Your task to perform on an android device: open app "Venmo" Image 0: 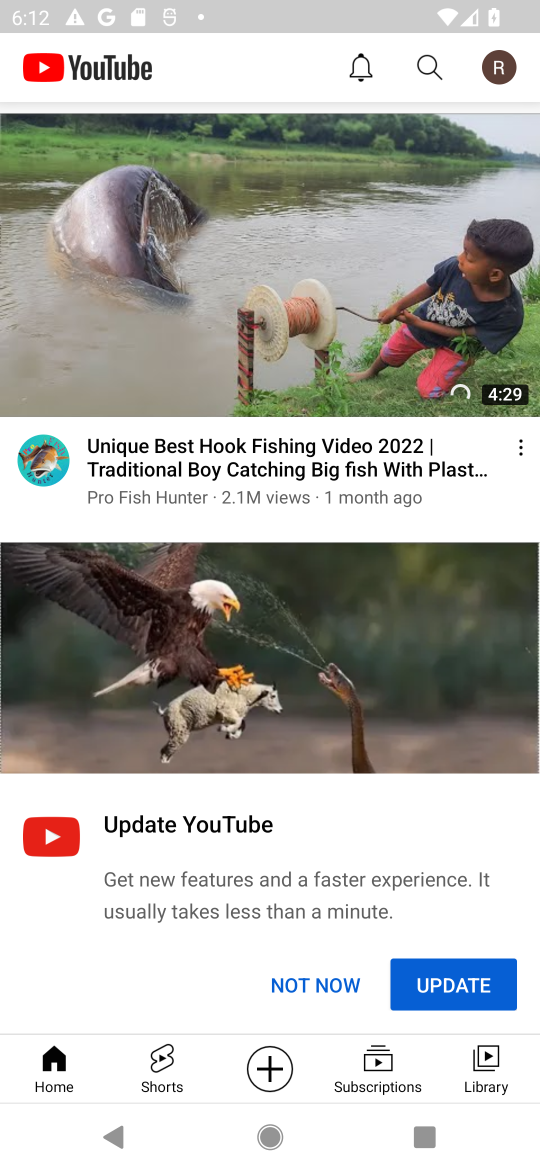
Step 0: press home button
Your task to perform on an android device: open app "Venmo" Image 1: 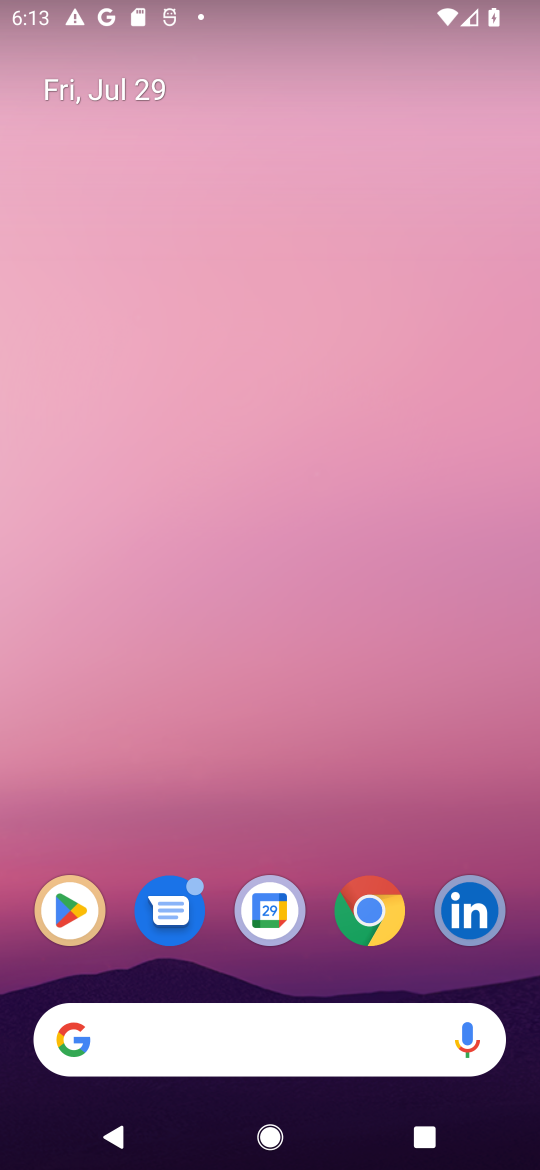
Step 1: drag from (252, 1021) to (299, 281)
Your task to perform on an android device: open app "Venmo" Image 2: 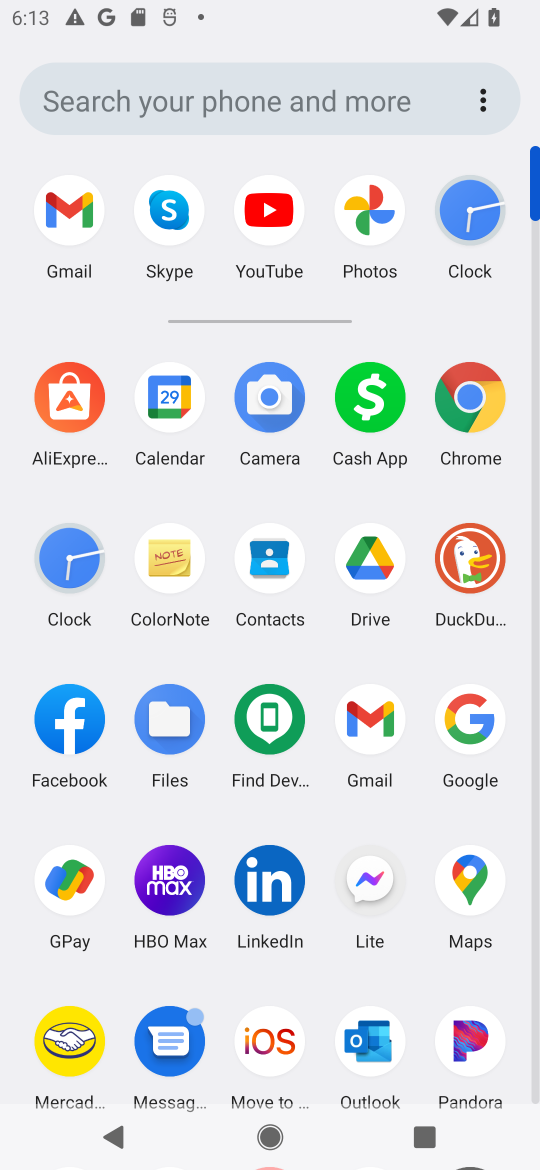
Step 2: drag from (327, 1054) to (336, 409)
Your task to perform on an android device: open app "Venmo" Image 3: 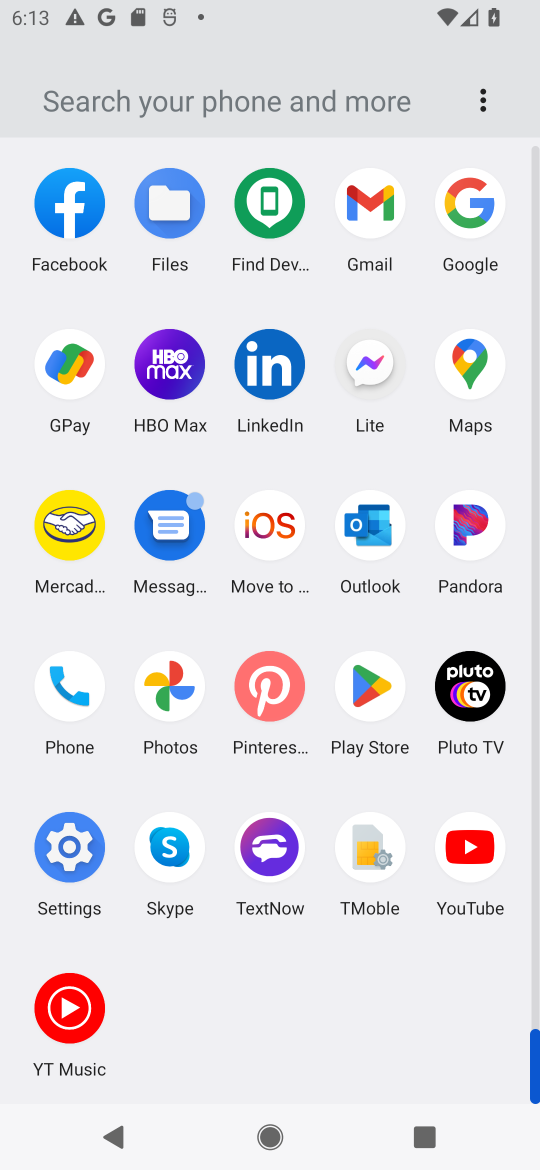
Step 3: click (367, 690)
Your task to perform on an android device: open app "Venmo" Image 4: 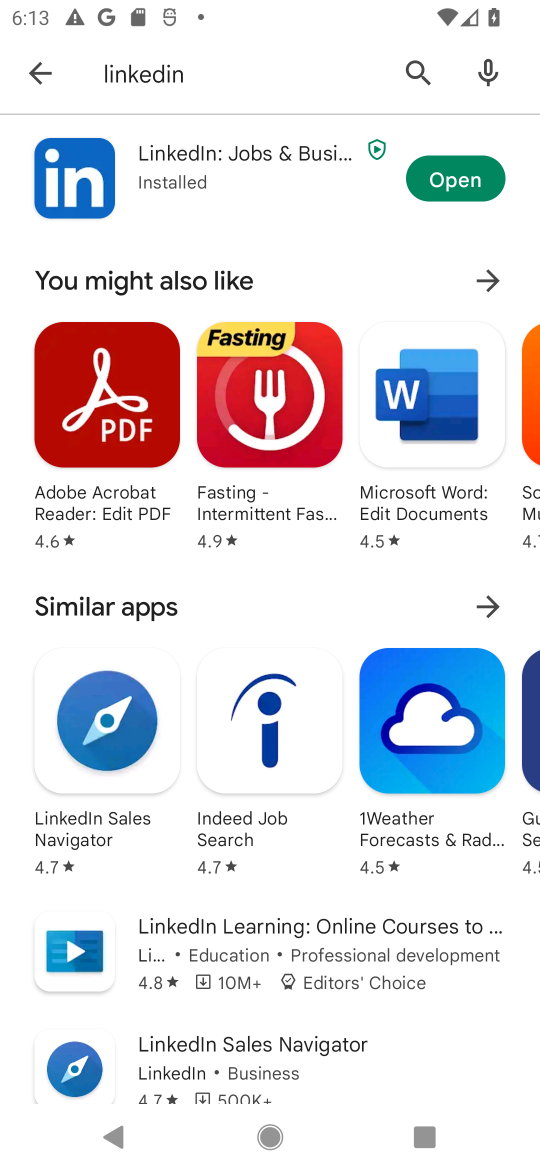
Step 4: click (412, 107)
Your task to perform on an android device: open app "Venmo" Image 5: 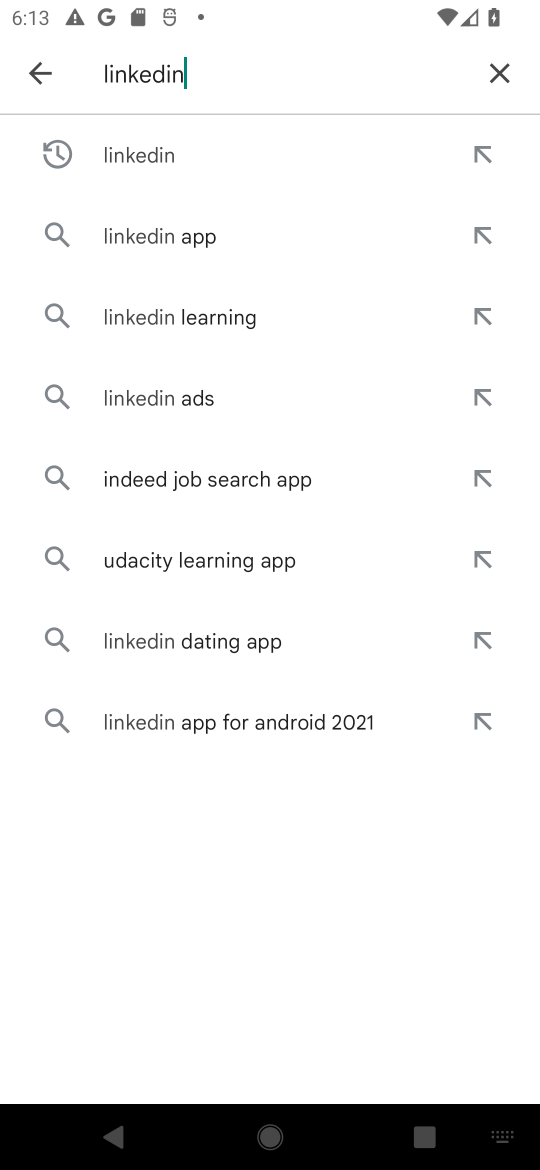
Step 5: click (502, 74)
Your task to perform on an android device: open app "Venmo" Image 6: 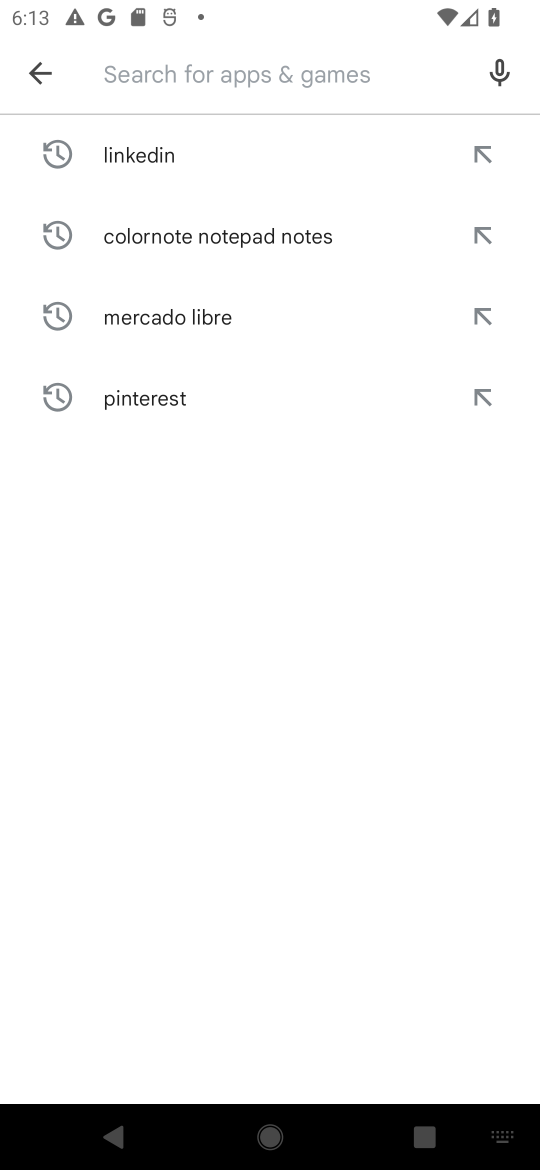
Step 6: type "Venmo"
Your task to perform on an android device: open app "Venmo" Image 7: 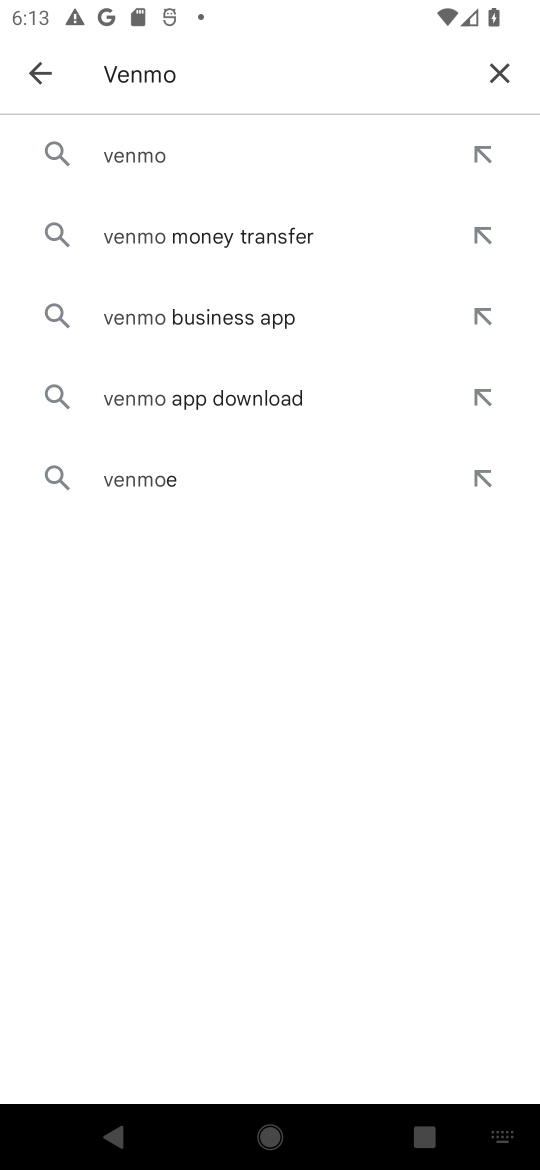
Step 7: click (129, 153)
Your task to perform on an android device: open app "Venmo" Image 8: 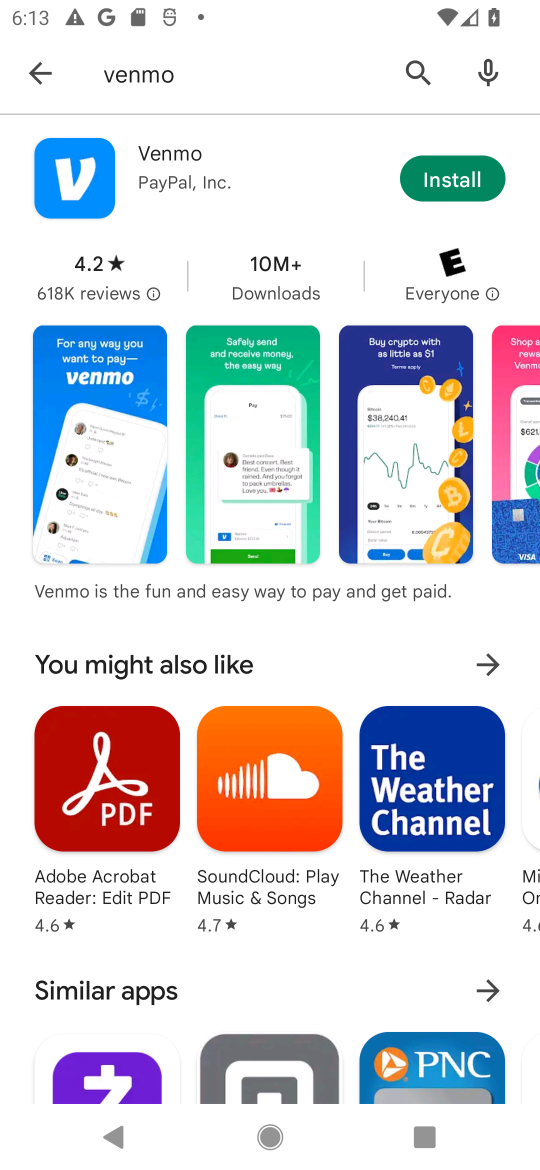
Step 8: click (442, 178)
Your task to perform on an android device: open app "Venmo" Image 9: 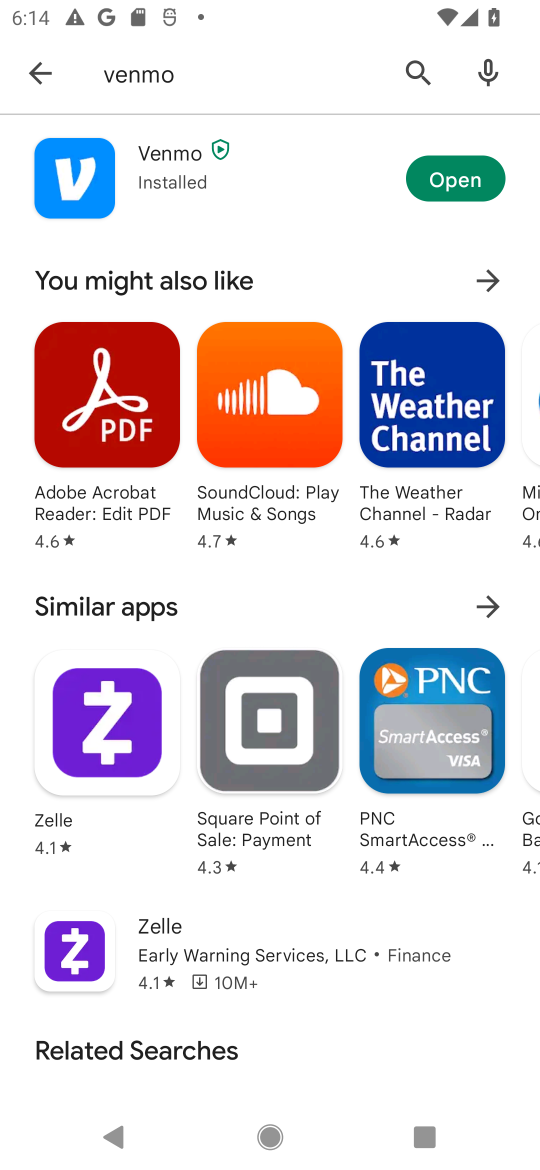
Step 9: click (462, 178)
Your task to perform on an android device: open app "Venmo" Image 10: 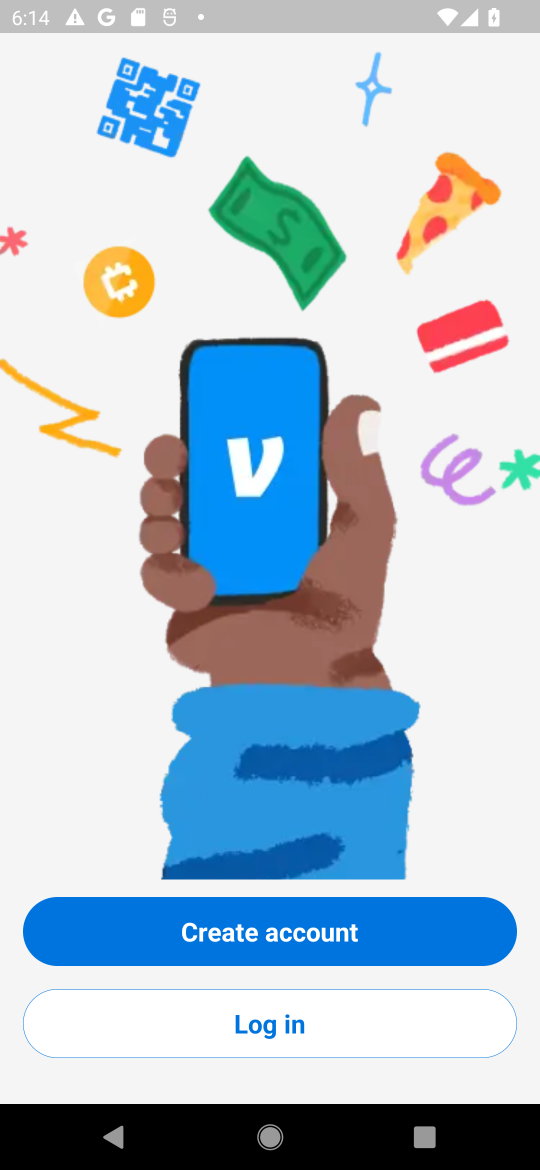
Step 10: task complete